Your task to perform on an android device: delete a single message in the gmail app Image 0: 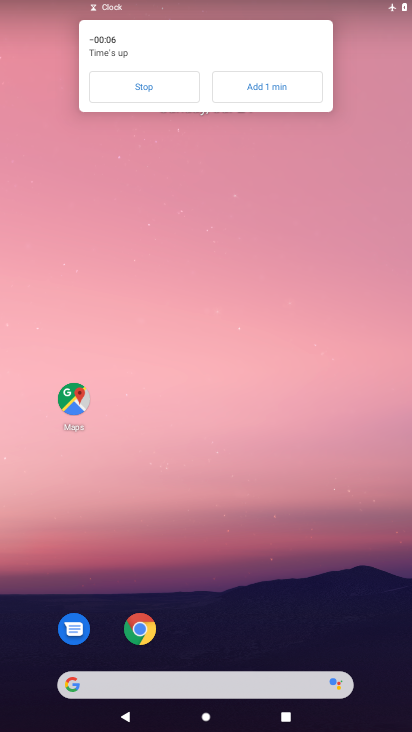
Step 0: drag from (226, 623) to (226, 81)
Your task to perform on an android device: delete a single message in the gmail app Image 1: 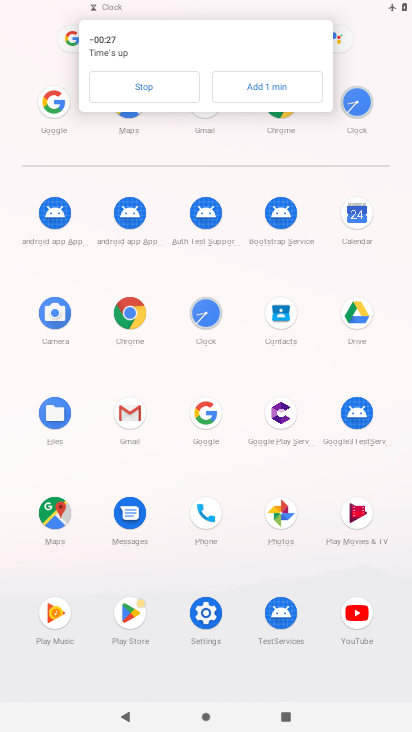
Step 1: click (121, 427)
Your task to perform on an android device: delete a single message in the gmail app Image 2: 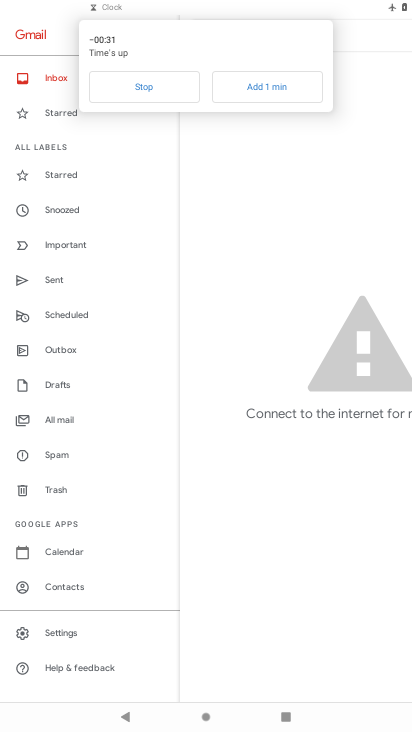
Step 2: click (69, 426)
Your task to perform on an android device: delete a single message in the gmail app Image 3: 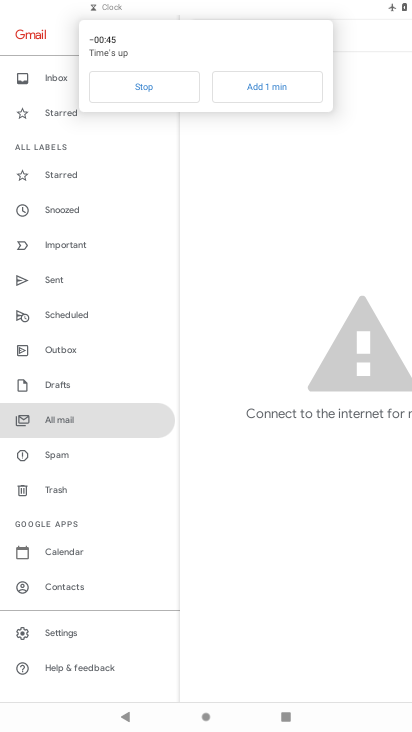
Step 3: task complete